Your task to perform on an android device: Clear all items from cart on amazon.com. Add logitech g pro to the cart on amazon.com Image 0: 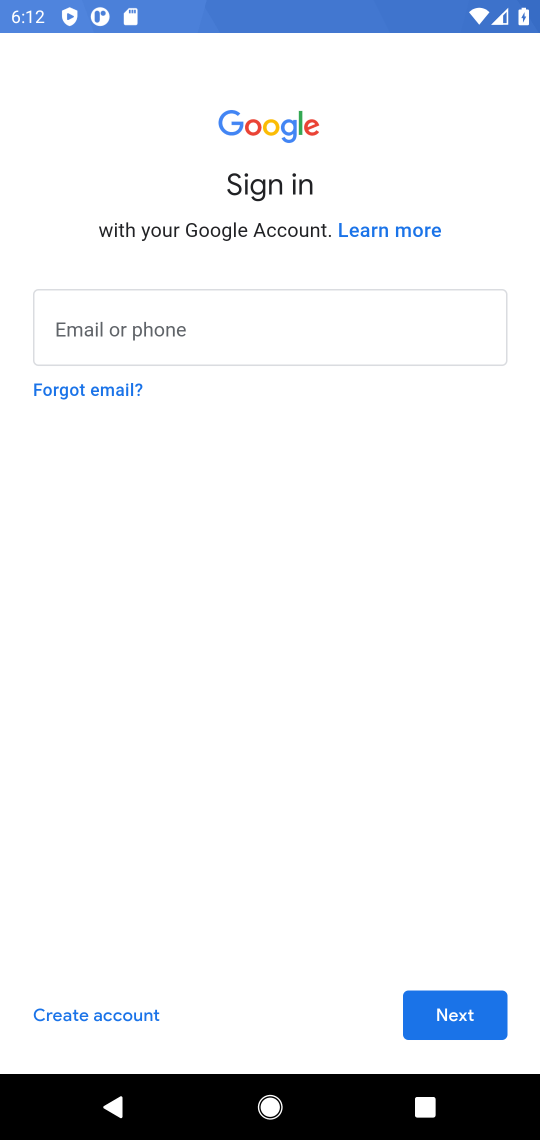
Step 0: press home button
Your task to perform on an android device: Clear all items from cart on amazon.com. Add logitech g pro to the cart on amazon.com Image 1: 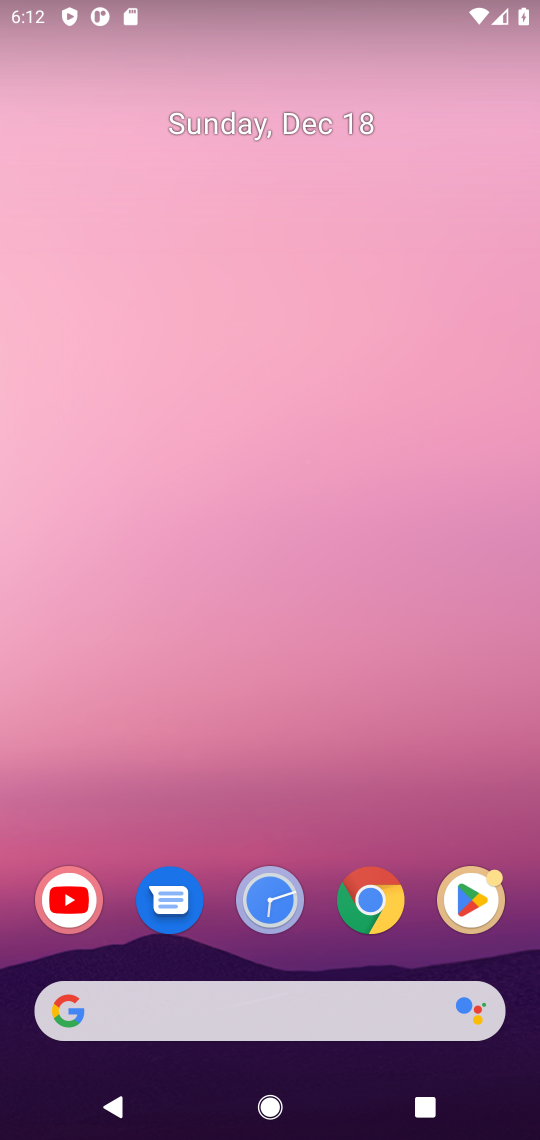
Step 1: click (376, 911)
Your task to perform on an android device: Clear all items from cart on amazon.com. Add logitech g pro to the cart on amazon.com Image 2: 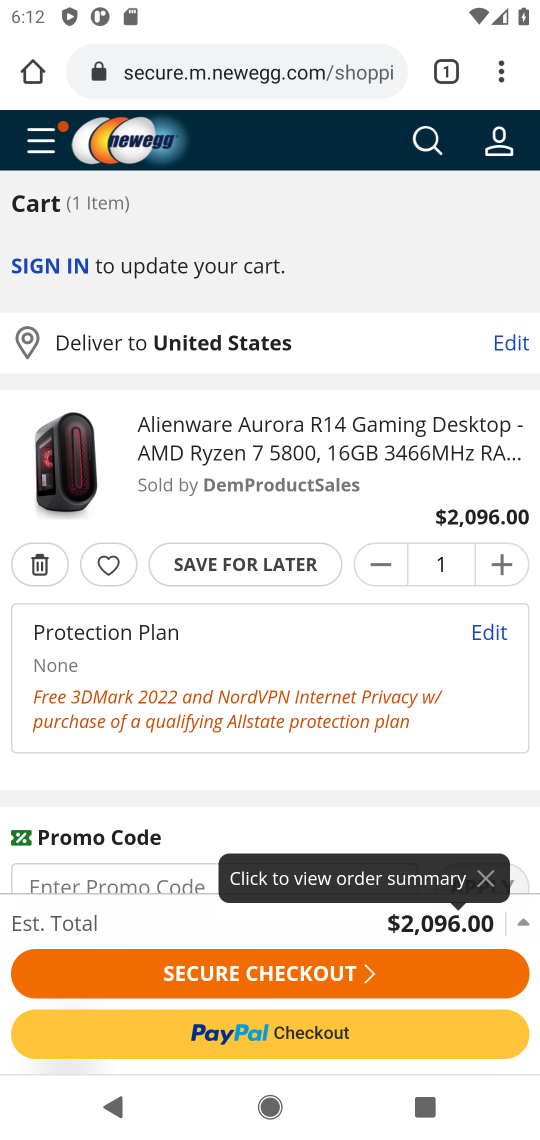
Step 2: click (448, 76)
Your task to perform on an android device: Clear all items from cart on amazon.com. Add logitech g pro to the cart on amazon.com Image 3: 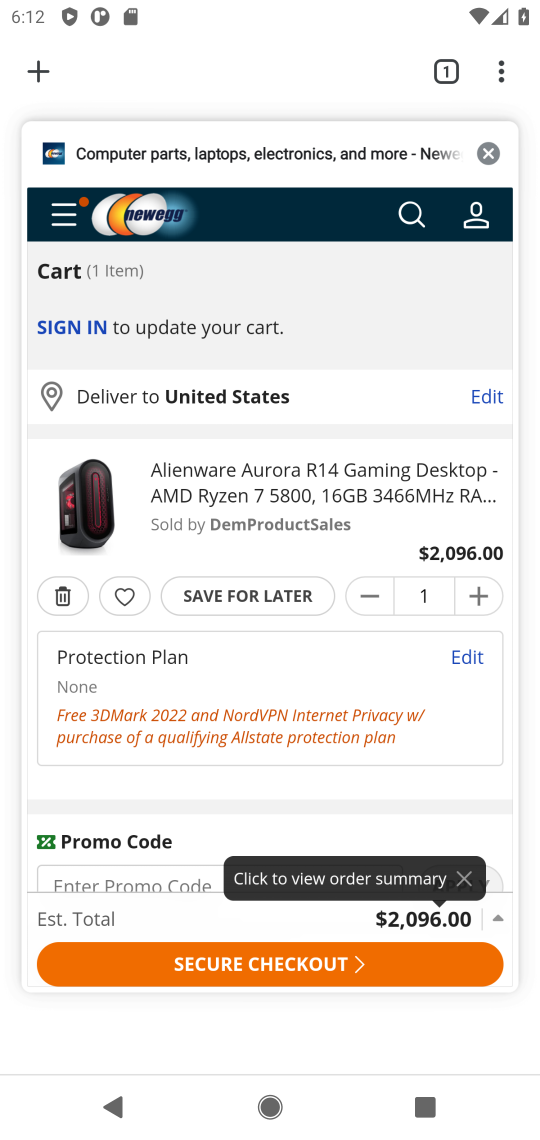
Step 3: click (30, 74)
Your task to perform on an android device: Clear all items from cart on amazon.com. Add logitech g pro to the cart on amazon.com Image 4: 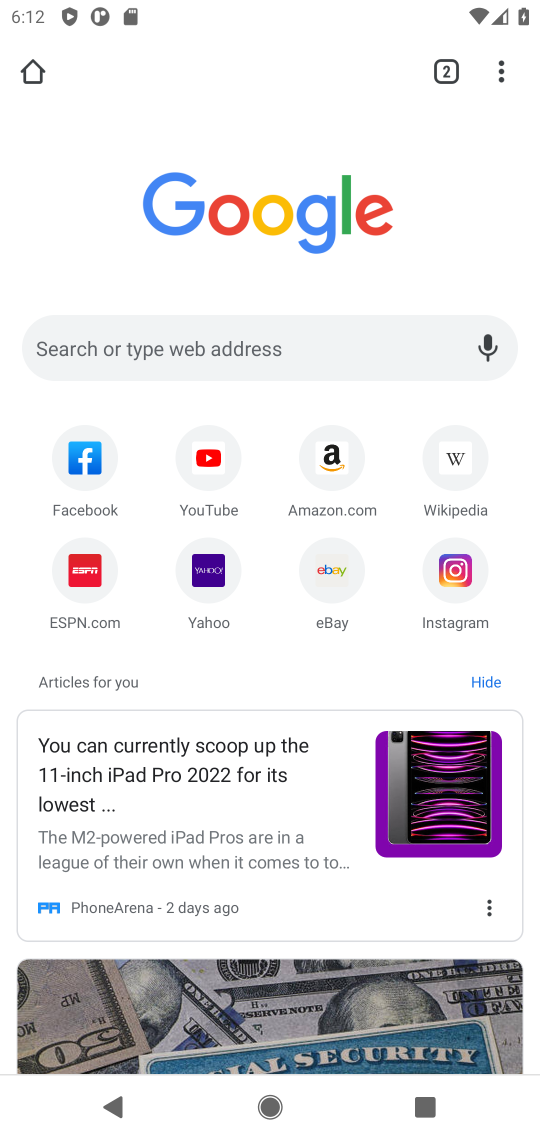
Step 4: click (320, 462)
Your task to perform on an android device: Clear all items from cart on amazon.com. Add logitech g pro to the cart on amazon.com Image 5: 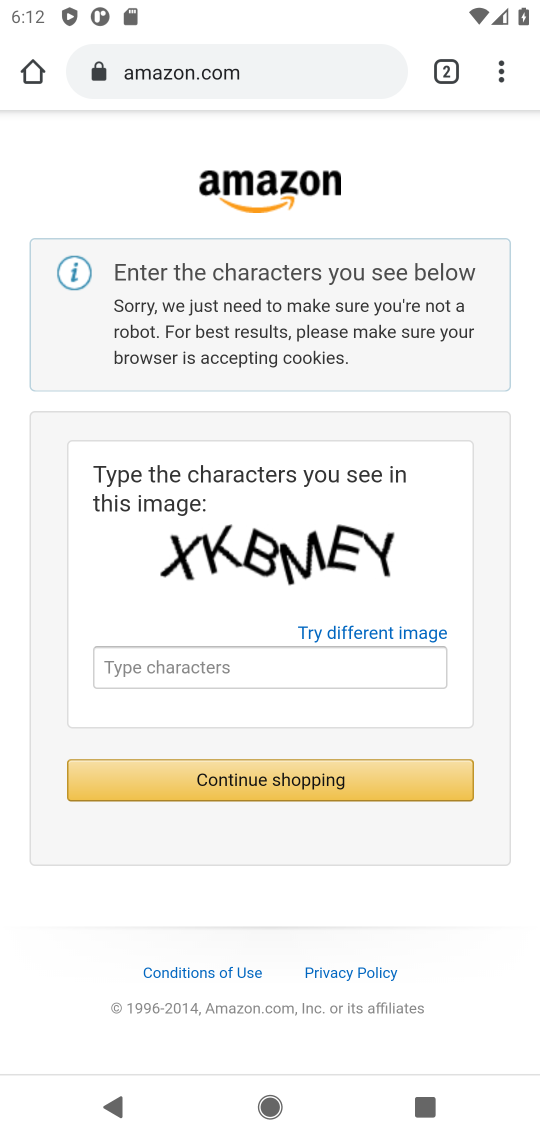
Step 5: click (282, 675)
Your task to perform on an android device: Clear all items from cart on amazon.com. Add logitech g pro to the cart on amazon.com Image 6: 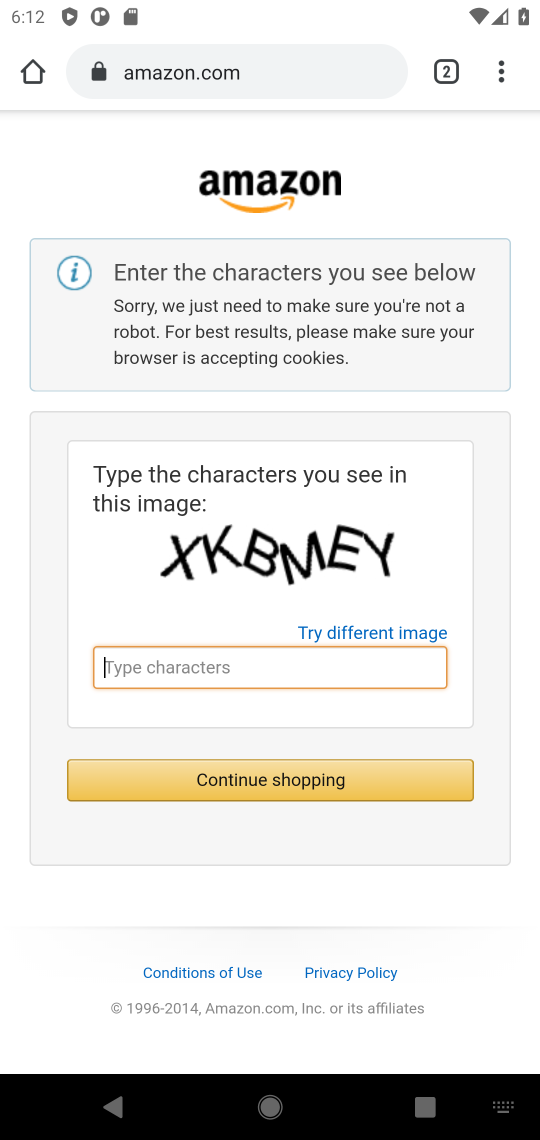
Step 6: type "XKBMEY"
Your task to perform on an android device: Clear all items from cart on amazon.com. Add logitech g pro to the cart on amazon.com Image 7: 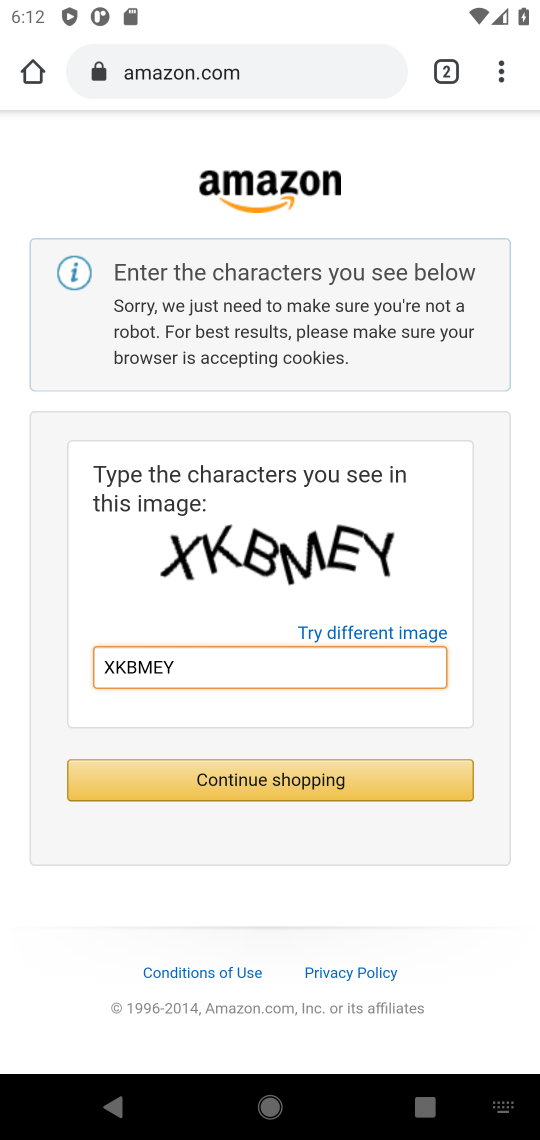
Step 7: press enter
Your task to perform on an android device: Clear all items from cart on amazon.com. Add logitech g pro to the cart on amazon.com Image 8: 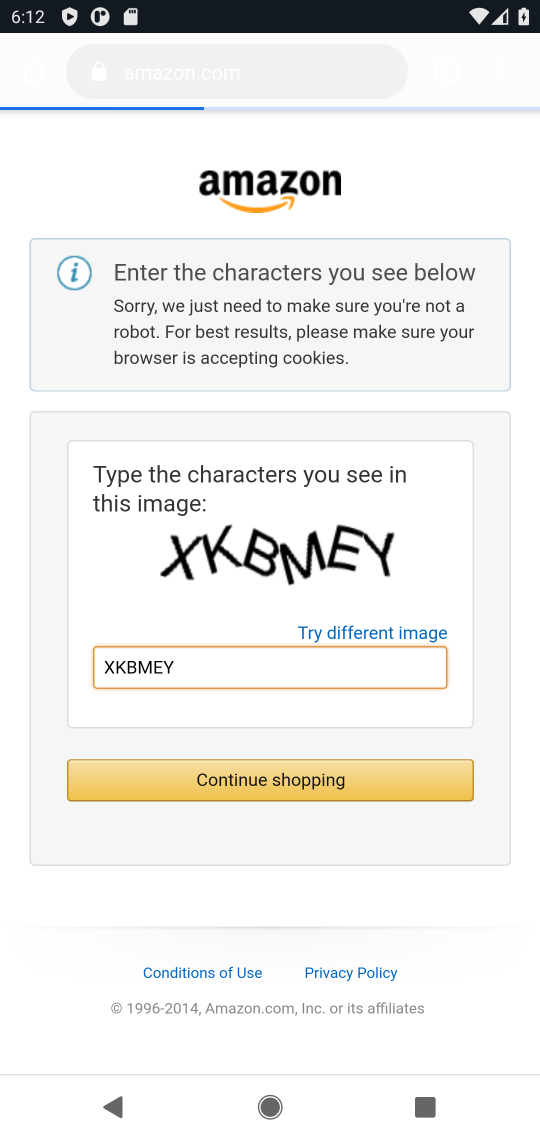
Step 8: click (209, 778)
Your task to perform on an android device: Clear all items from cart on amazon.com. Add logitech g pro to the cart on amazon.com Image 9: 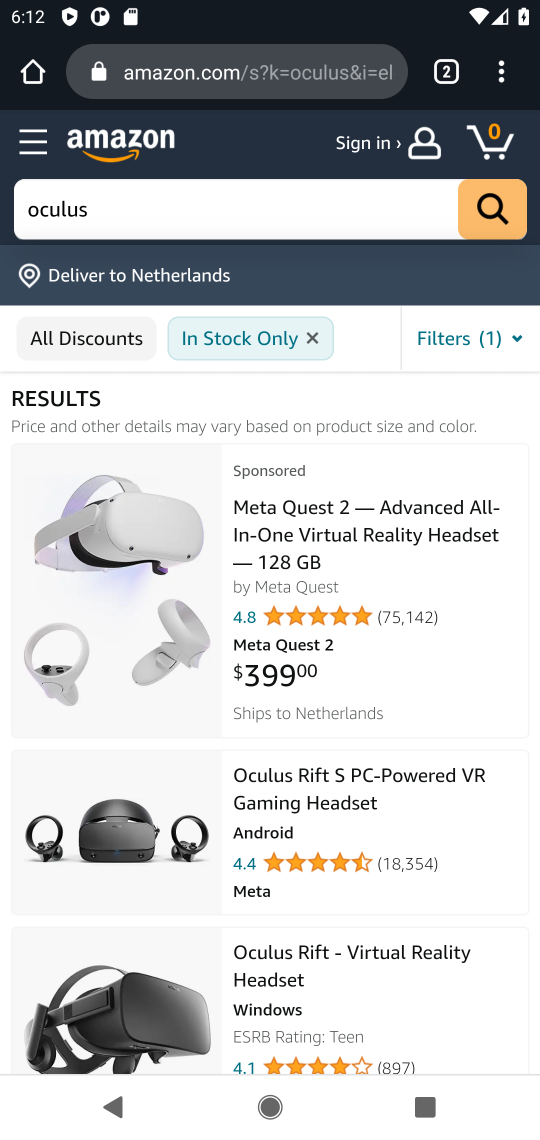
Step 9: click (105, 204)
Your task to perform on an android device: Clear all items from cart on amazon.com. Add logitech g pro to the cart on amazon.com Image 10: 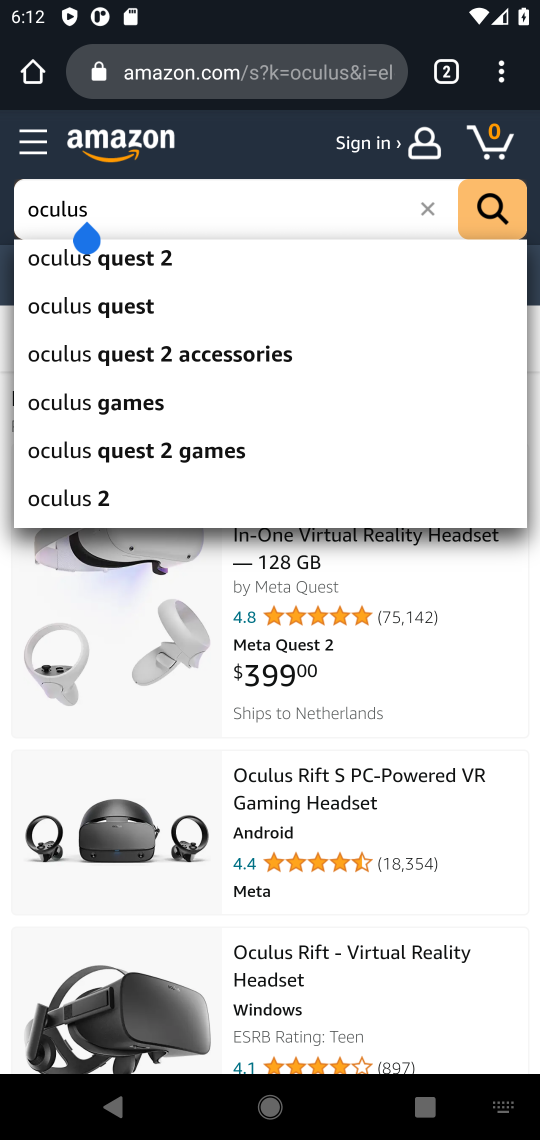
Step 10: click (428, 206)
Your task to perform on an android device: Clear all items from cart on amazon.com. Add logitech g pro to the cart on amazon.com Image 11: 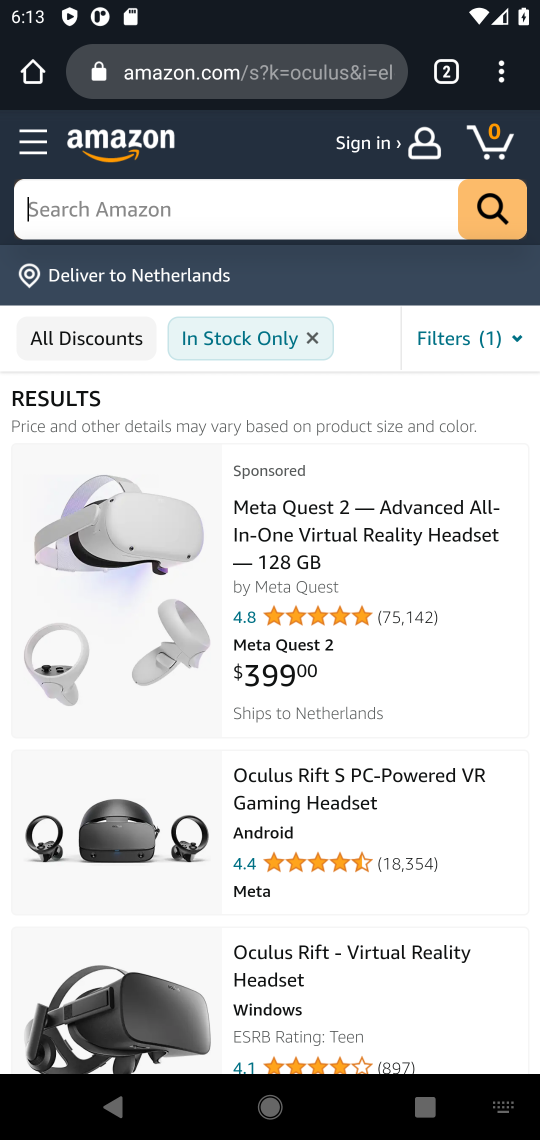
Step 11: type "logitech g pro"
Your task to perform on an android device: Clear all items from cart on amazon.com. Add logitech g pro to the cart on amazon.com Image 12: 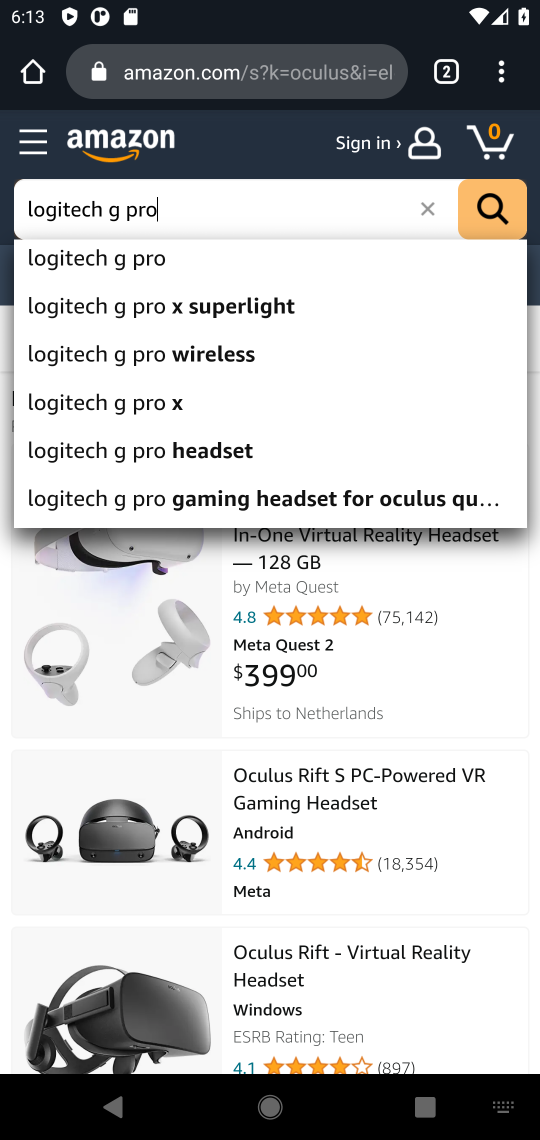
Step 12: click (115, 265)
Your task to perform on an android device: Clear all items from cart on amazon.com. Add logitech g pro to the cart on amazon.com Image 13: 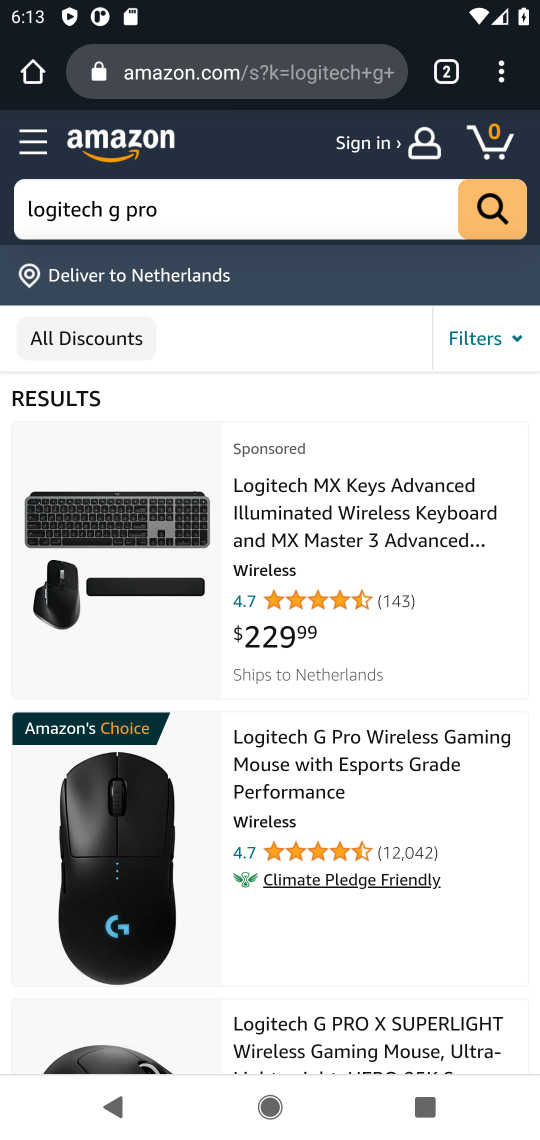
Step 13: click (302, 766)
Your task to perform on an android device: Clear all items from cart on amazon.com. Add logitech g pro to the cart on amazon.com Image 14: 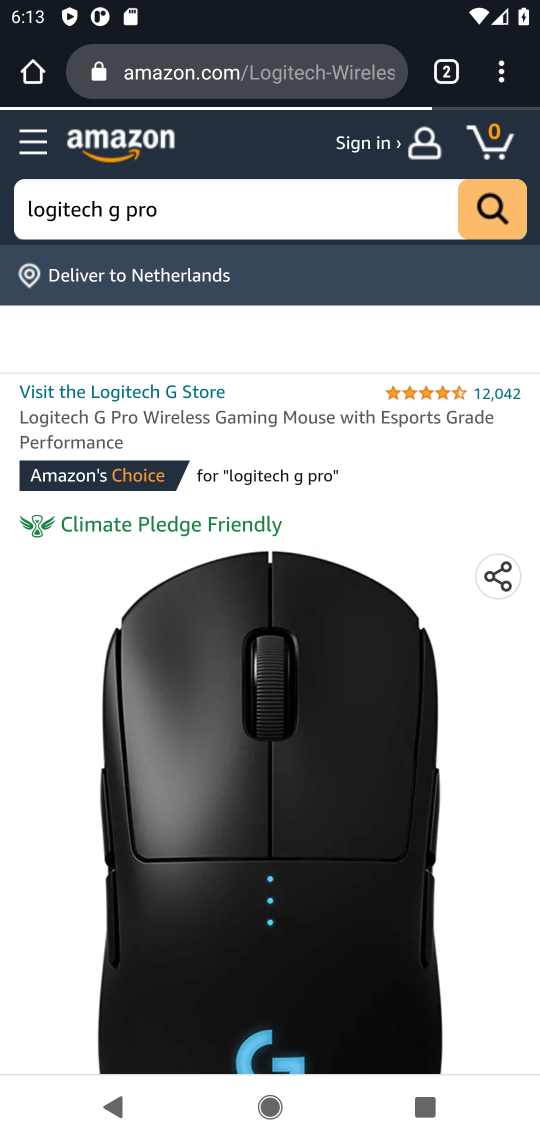
Step 14: drag from (469, 978) to (505, 433)
Your task to perform on an android device: Clear all items from cart on amazon.com. Add logitech g pro to the cart on amazon.com Image 15: 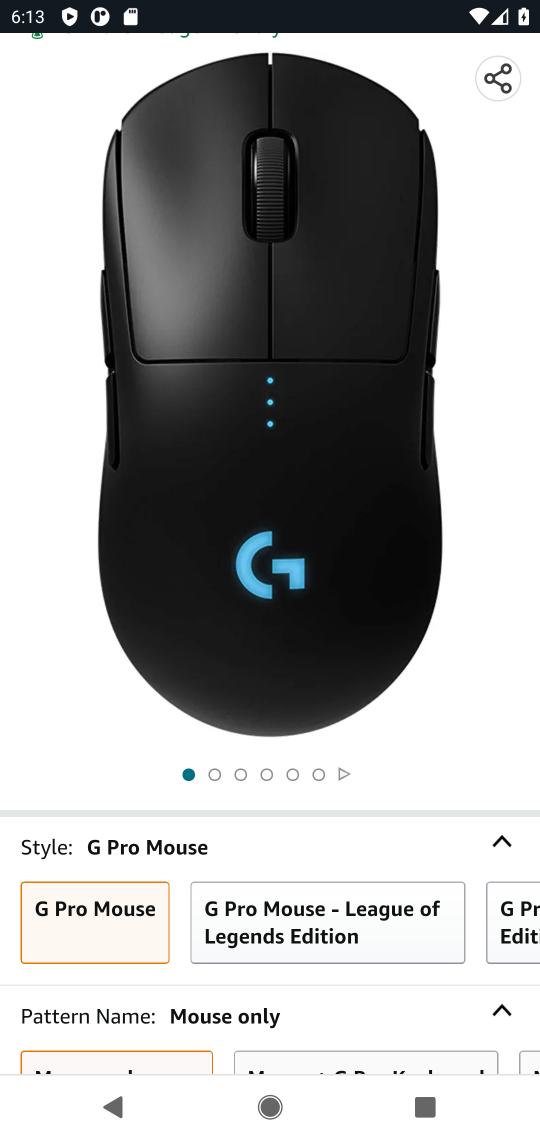
Step 15: drag from (338, 831) to (439, 350)
Your task to perform on an android device: Clear all items from cart on amazon.com. Add logitech g pro to the cart on amazon.com Image 16: 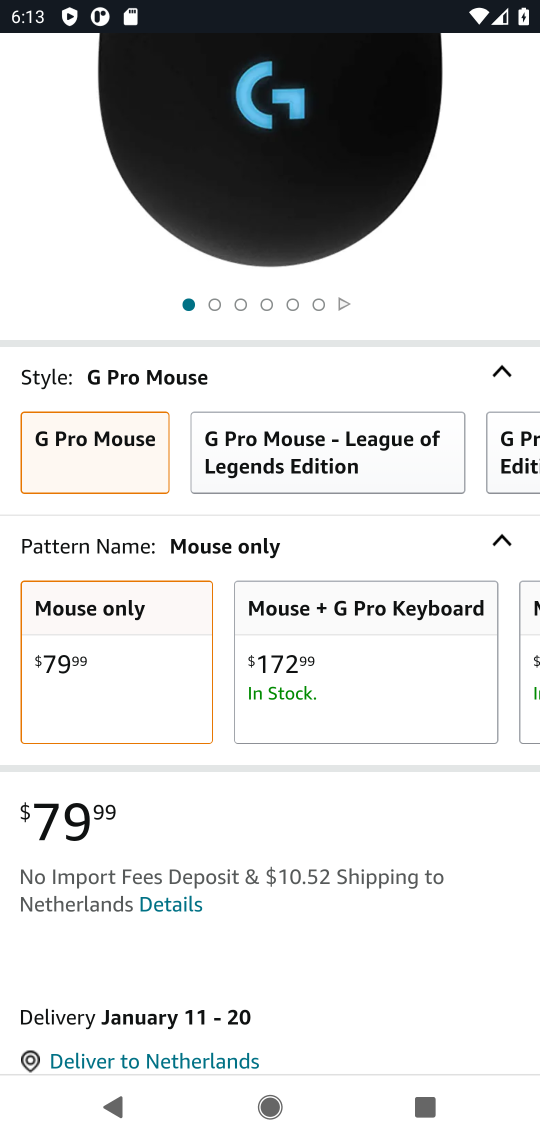
Step 16: drag from (307, 933) to (370, 439)
Your task to perform on an android device: Clear all items from cart on amazon.com. Add logitech g pro to the cart on amazon.com Image 17: 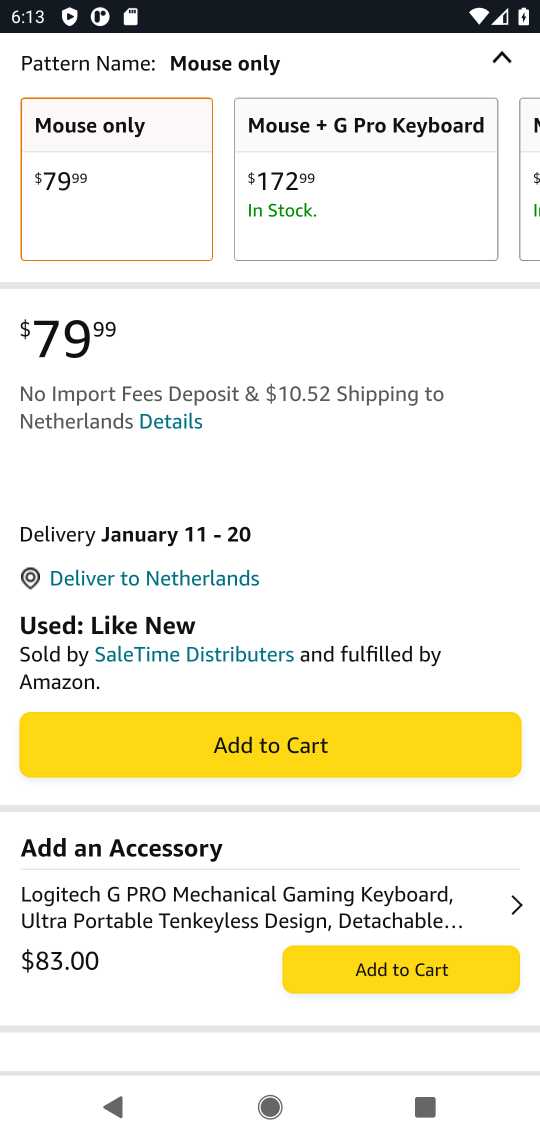
Step 17: click (273, 732)
Your task to perform on an android device: Clear all items from cart on amazon.com. Add logitech g pro to the cart on amazon.com Image 18: 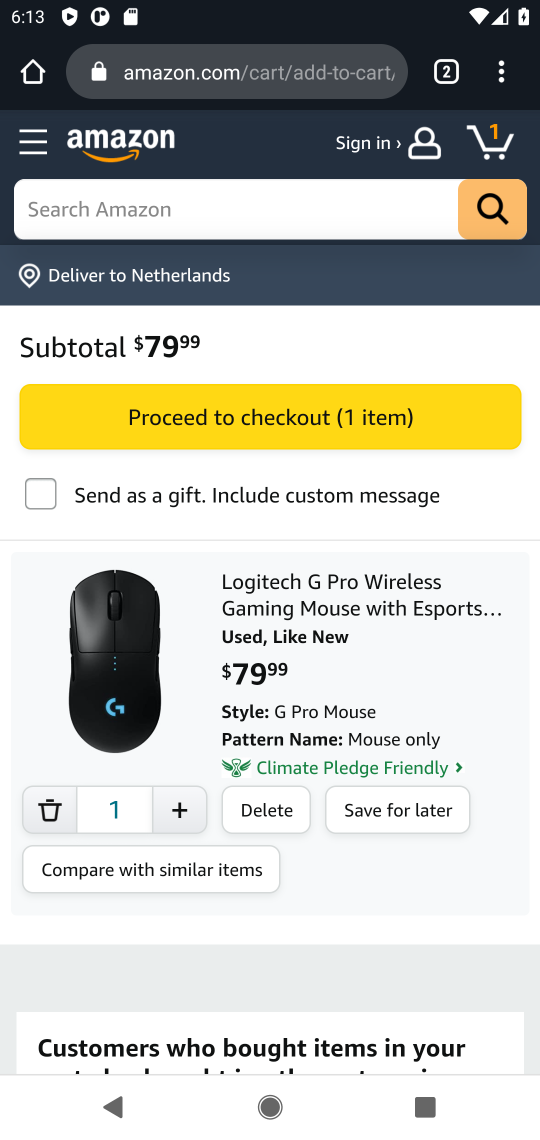
Step 18: task complete